Your task to perform on an android device: install app "eBay: The shopping marketplace" Image 0: 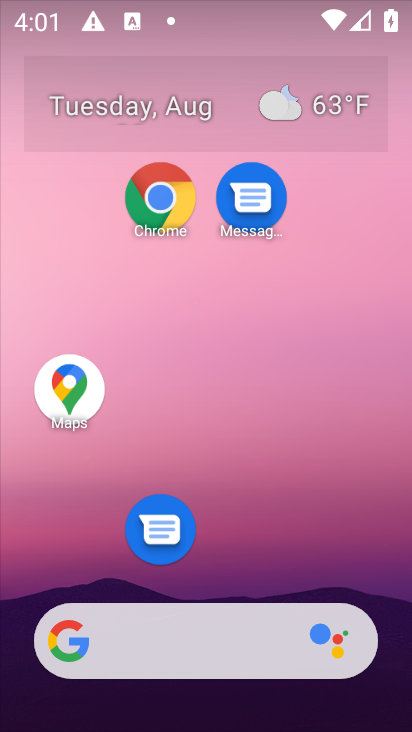
Step 0: drag from (217, 651) to (192, 2)
Your task to perform on an android device: install app "eBay: The shopping marketplace" Image 1: 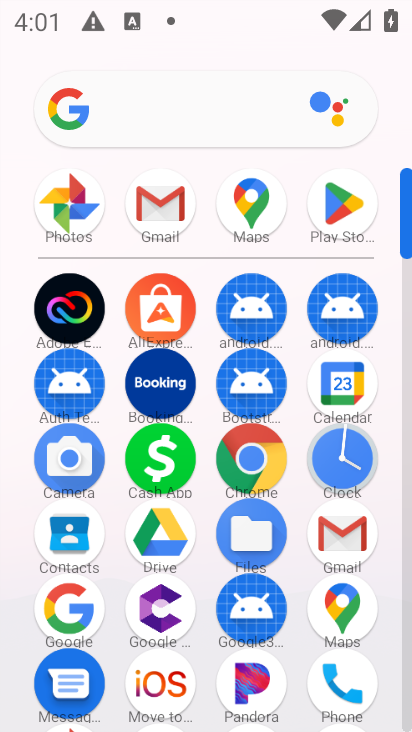
Step 1: click (333, 200)
Your task to perform on an android device: install app "eBay: The shopping marketplace" Image 2: 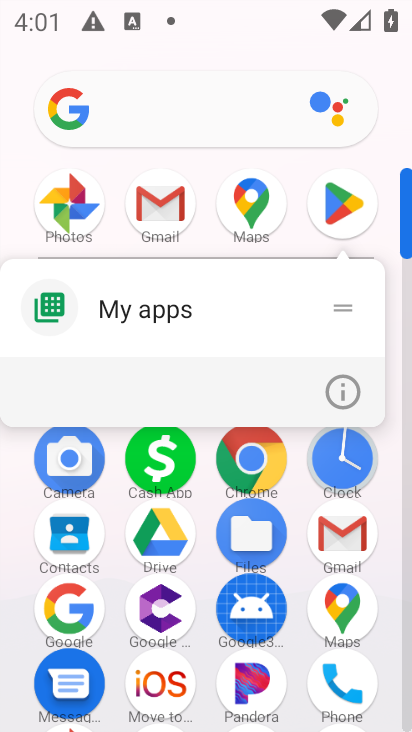
Step 2: click (330, 199)
Your task to perform on an android device: install app "eBay: The shopping marketplace" Image 3: 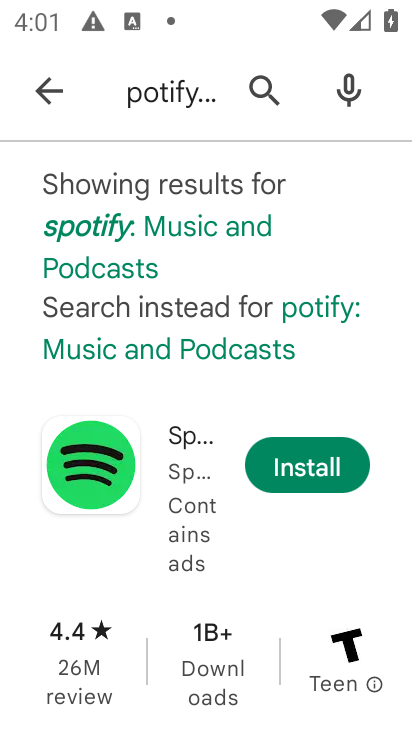
Step 3: press back button
Your task to perform on an android device: install app "eBay: The shopping marketplace" Image 4: 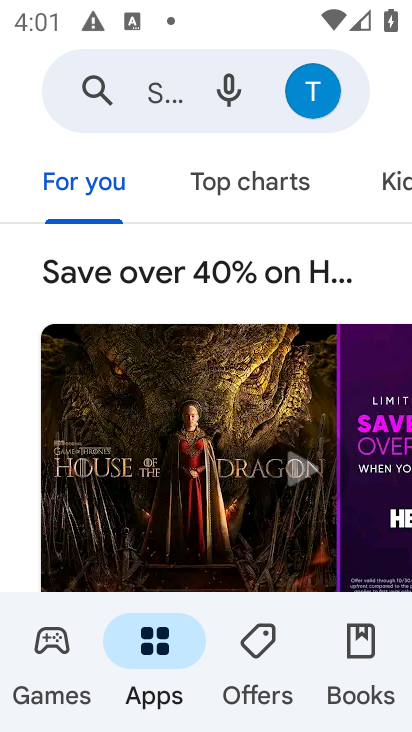
Step 4: click (152, 102)
Your task to perform on an android device: install app "eBay: The shopping marketplace" Image 5: 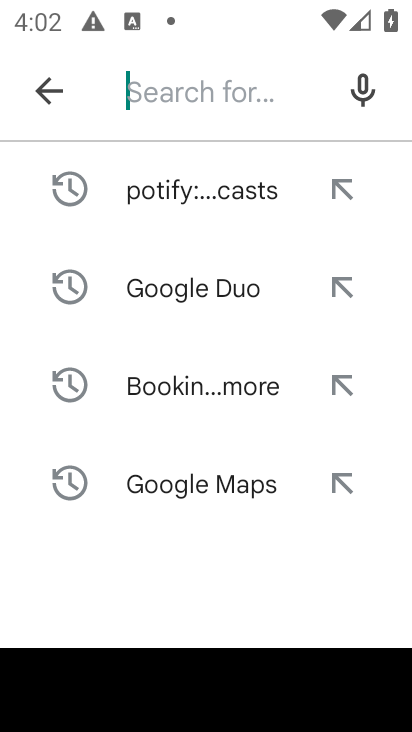
Step 5: type "eBay: The shopping marketplace""
Your task to perform on an android device: install app "eBay: The shopping marketplace" Image 6: 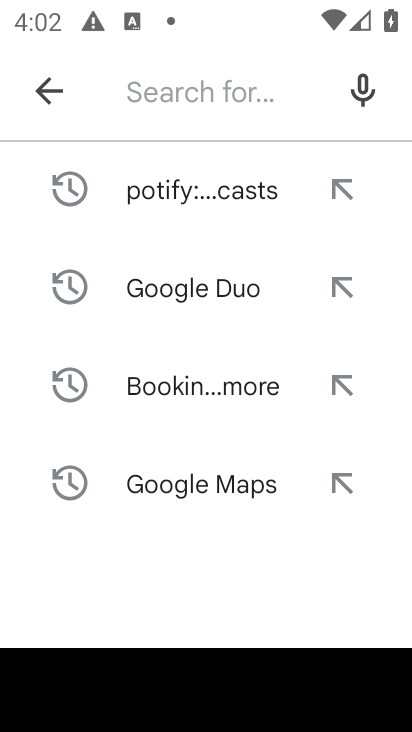
Step 6: type "eBay: The shopping marketplace"
Your task to perform on an android device: install app "eBay: The shopping marketplace" Image 7: 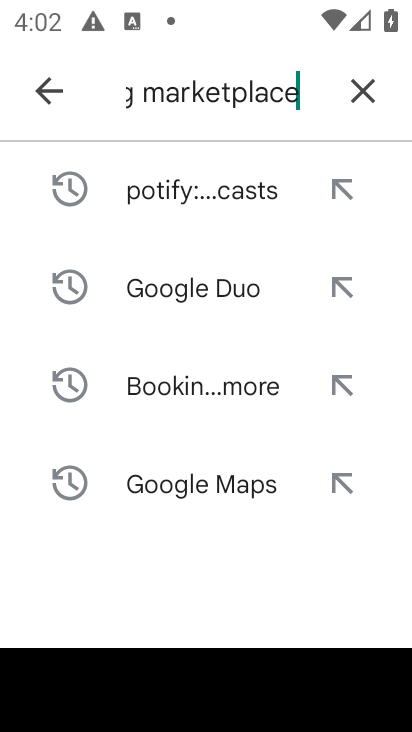
Step 7: press enter
Your task to perform on an android device: install app "eBay: The shopping marketplace" Image 8: 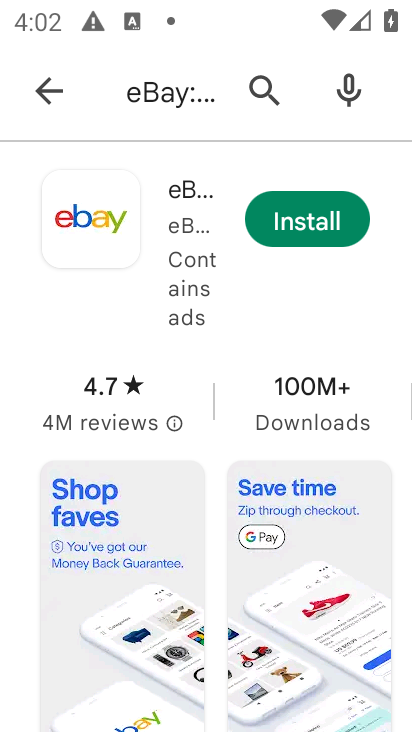
Step 8: click (293, 226)
Your task to perform on an android device: install app "eBay: The shopping marketplace" Image 9: 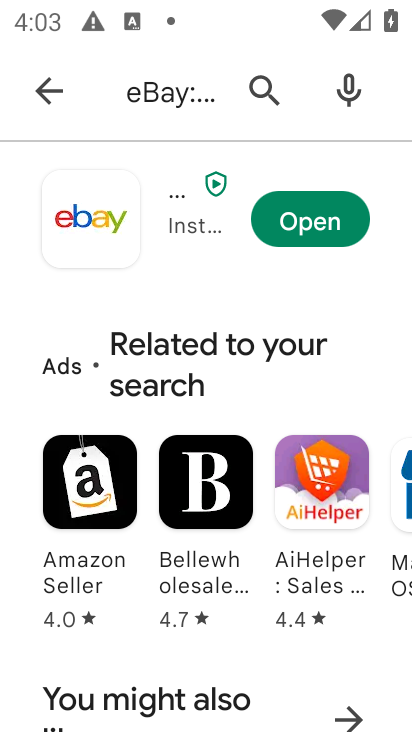
Step 9: click (310, 225)
Your task to perform on an android device: install app "eBay: The shopping marketplace" Image 10: 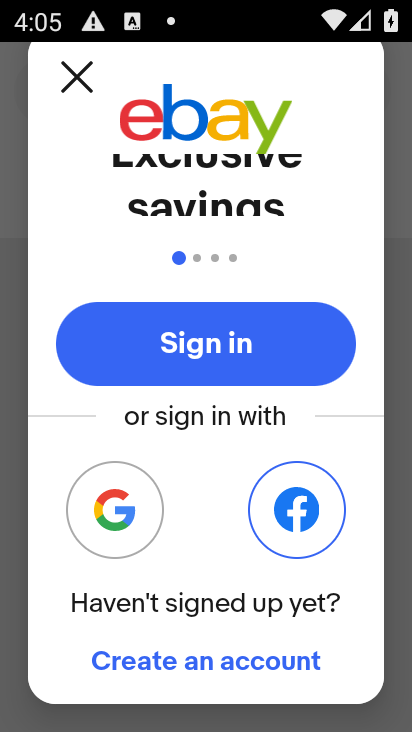
Step 10: task complete